Your task to perform on an android device: open app "Viber Messenger" Image 0: 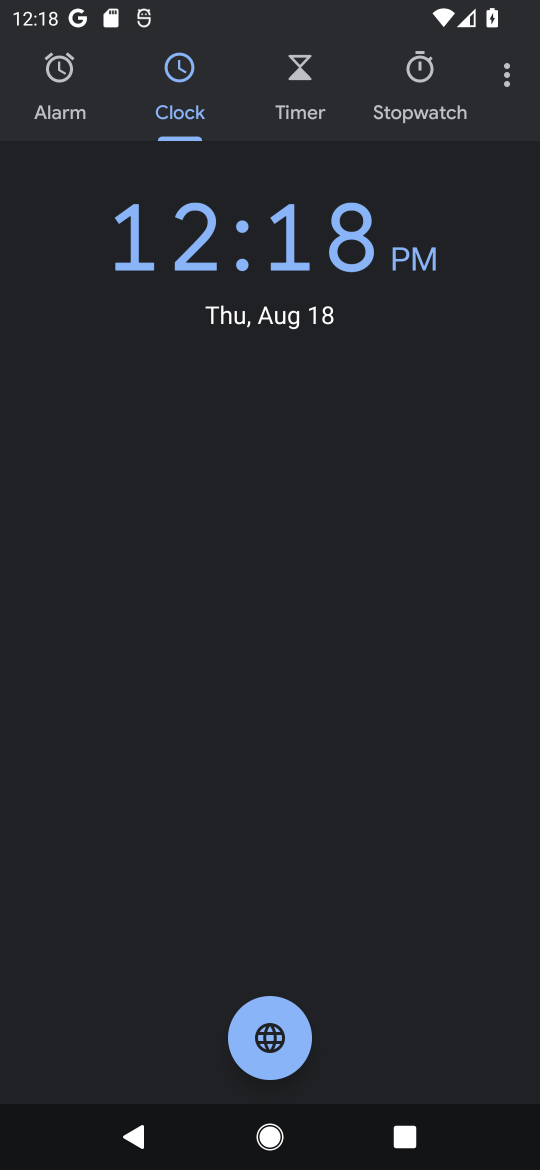
Step 0: press back button
Your task to perform on an android device: open app "Viber Messenger" Image 1: 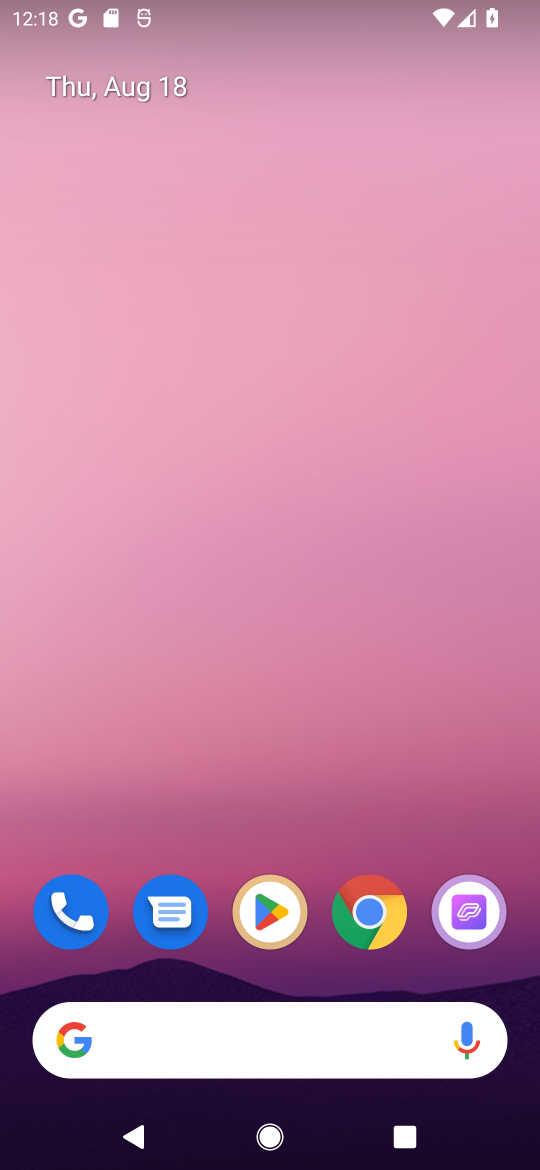
Step 1: click (262, 928)
Your task to perform on an android device: open app "Viber Messenger" Image 2: 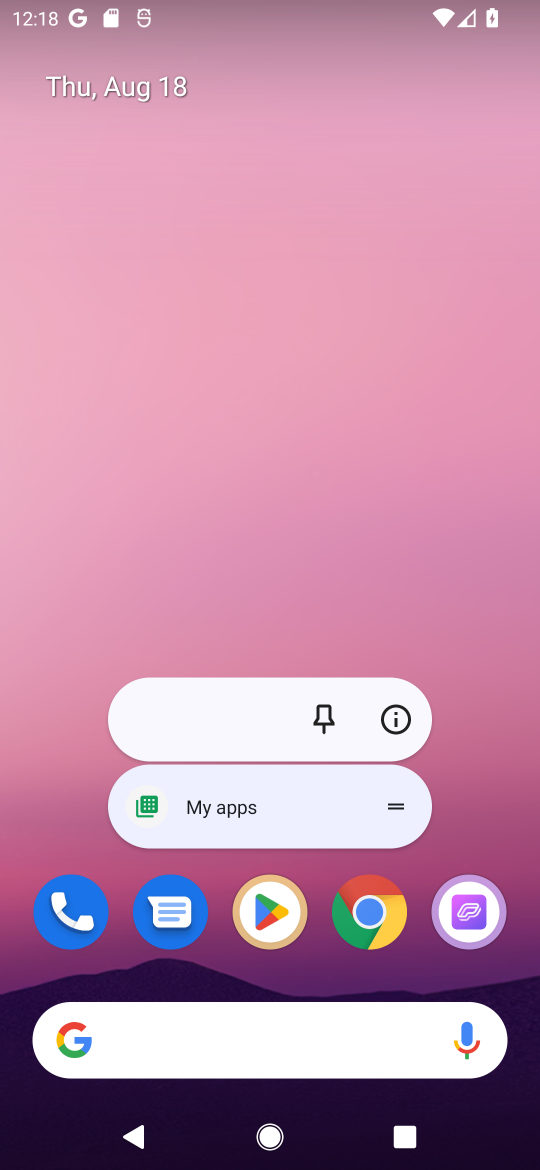
Step 2: click (270, 918)
Your task to perform on an android device: open app "Viber Messenger" Image 3: 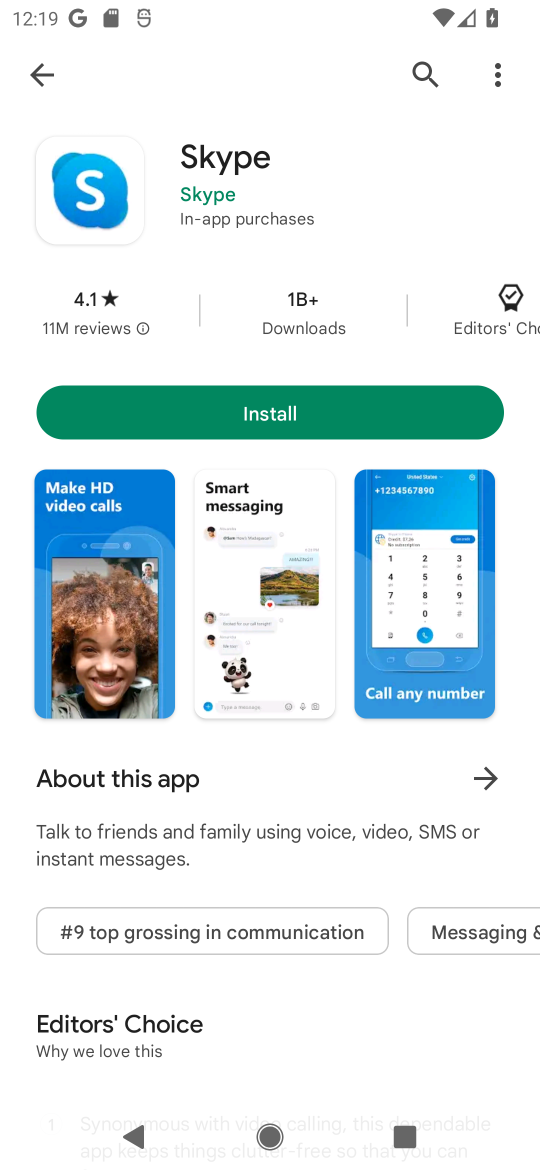
Step 3: click (425, 63)
Your task to perform on an android device: open app "Viber Messenger" Image 4: 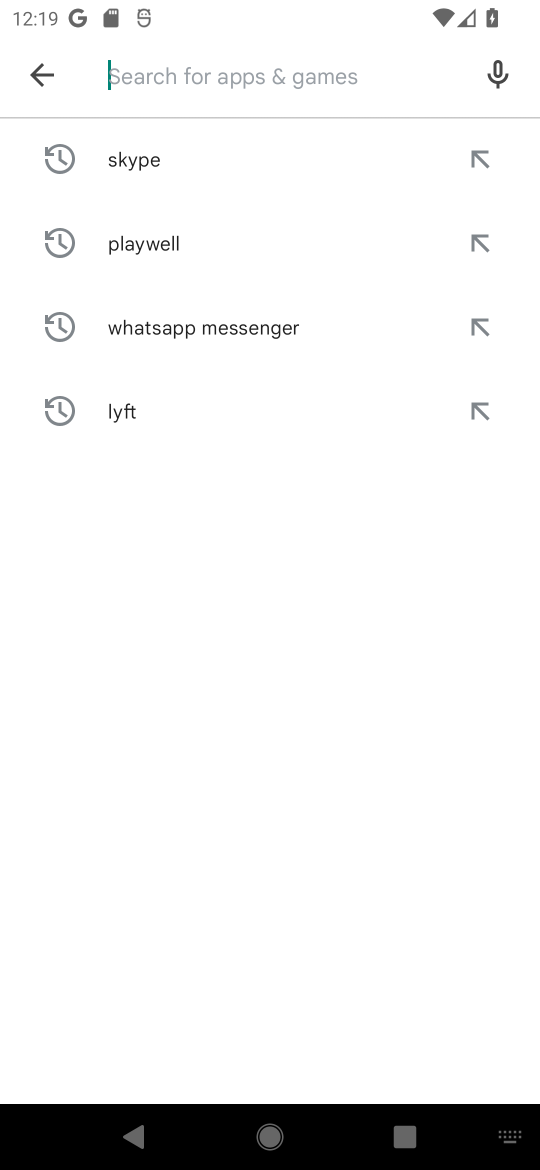
Step 4: click (209, 81)
Your task to perform on an android device: open app "Viber Messenger" Image 5: 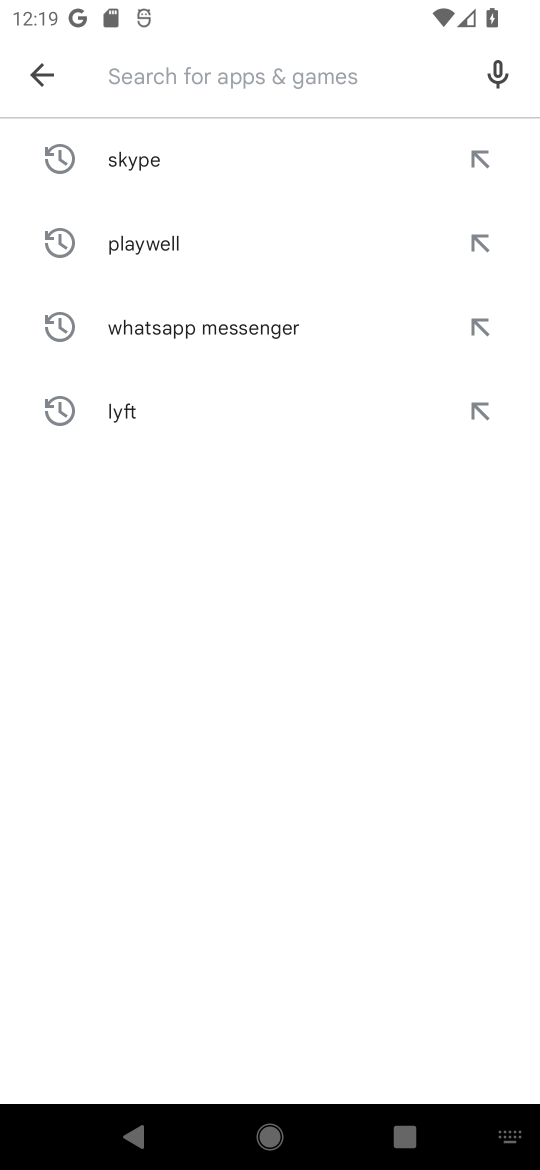
Step 5: type "Viber Messenger"
Your task to perform on an android device: open app "Viber Messenger" Image 6: 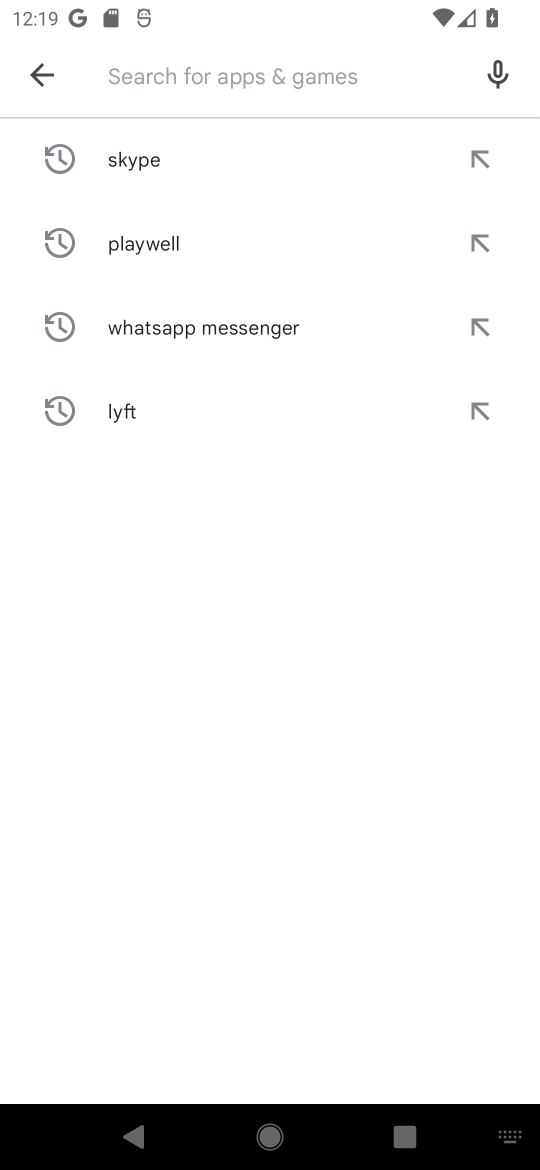
Step 6: click (338, 842)
Your task to perform on an android device: open app "Viber Messenger" Image 7: 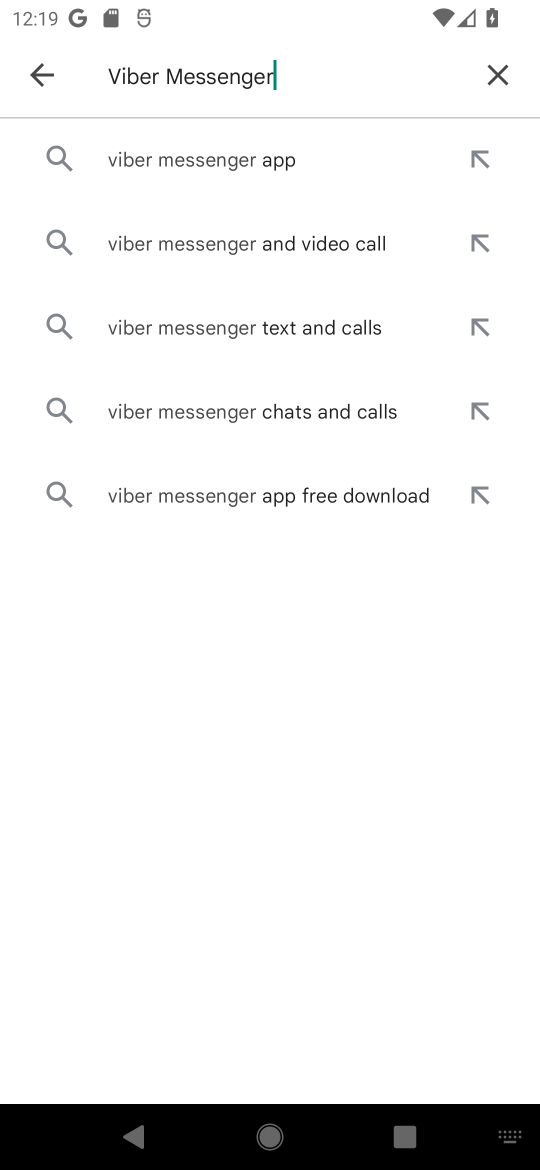
Step 7: click (247, 159)
Your task to perform on an android device: open app "Viber Messenger" Image 8: 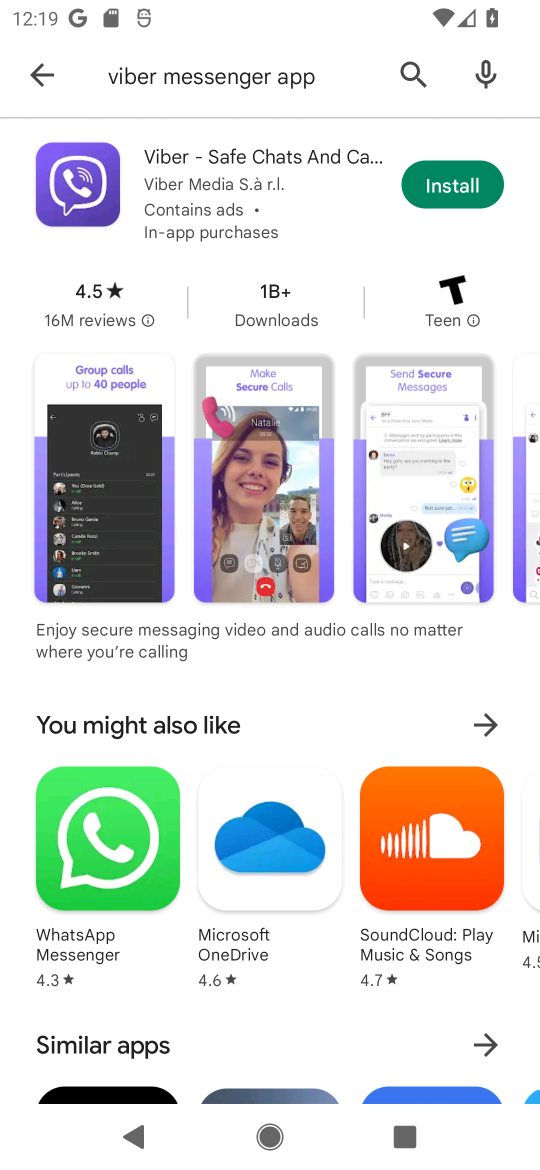
Step 8: task complete